Your task to perform on an android device: refresh tabs in the chrome app Image 0: 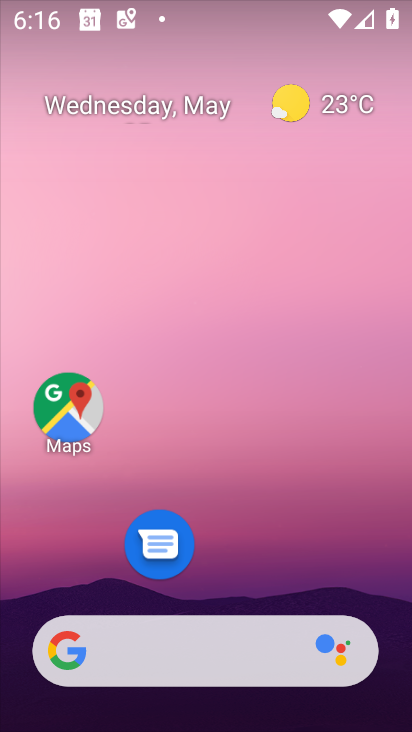
Step 0: click (132, 643)
Your task to perform on an android device: refresh tabs in the chrome app Image 1: 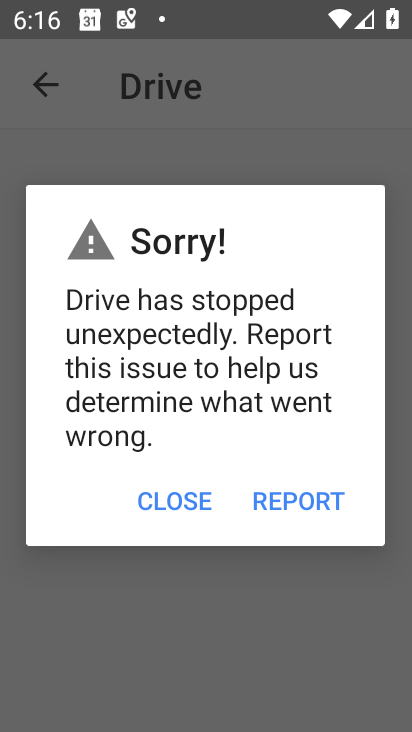
Step 1: press home button
Your task to perform on an android device: refresh tabs in the chrome app Image 2: 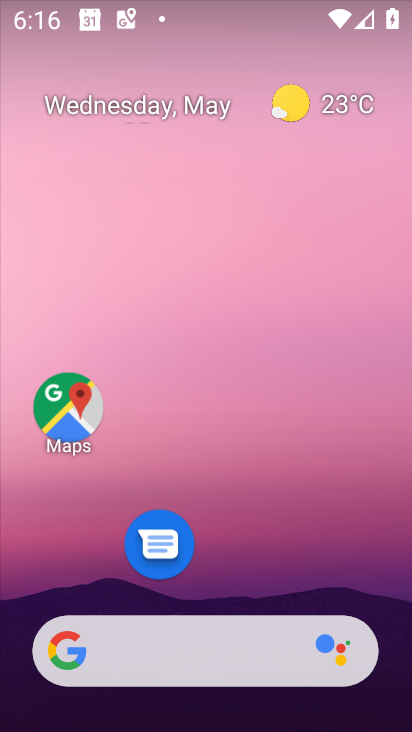
Step 2: drag from (275, 491) to (182, 70)
Your task to perform on an android device: refresh tabs in the chrome app Image 3: 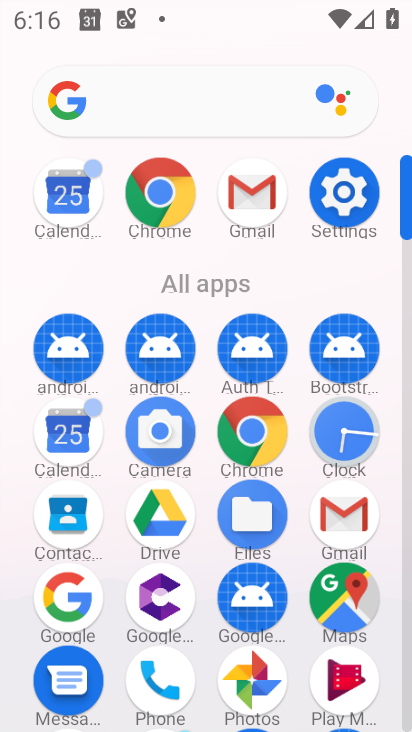
Step 3: click (162, 191)
Your task to perform on an android device: refresh tabs in the chrome app Image 4: 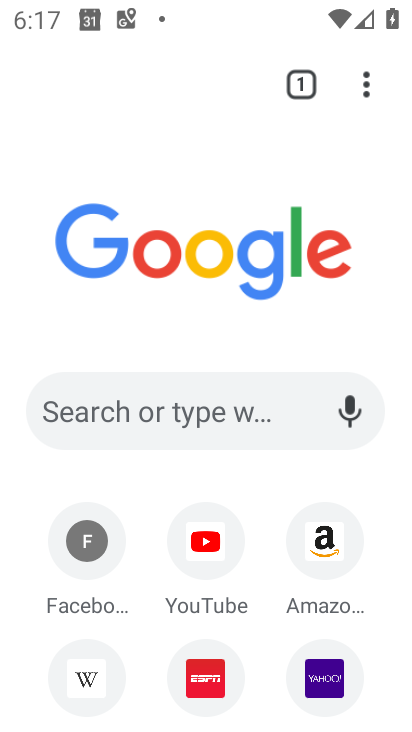
Step 4: click (370, 80)
Your task to perform on an android device: refresh tabs in the chrome app Image 5: 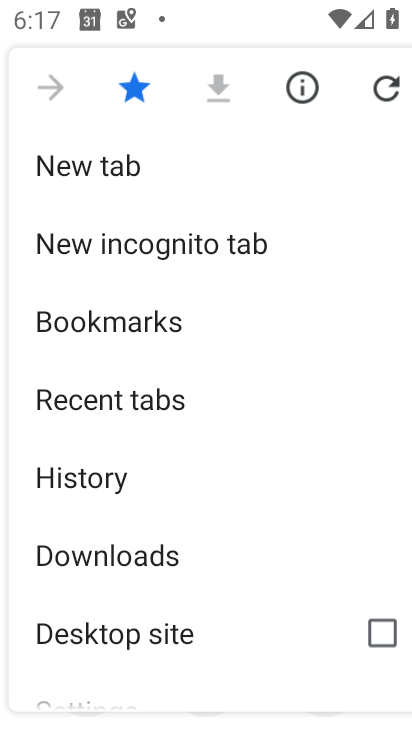
Step 5: click (387, 84)
Your task to perform on an android device: refresh tabs in the chrome app Image 6: 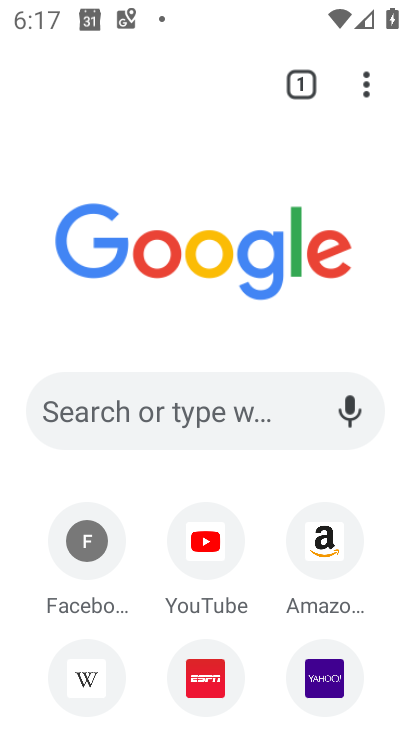
Step 6: task complete